Your task to perform on an android device: turn pop-ups on in chrome Image 0: 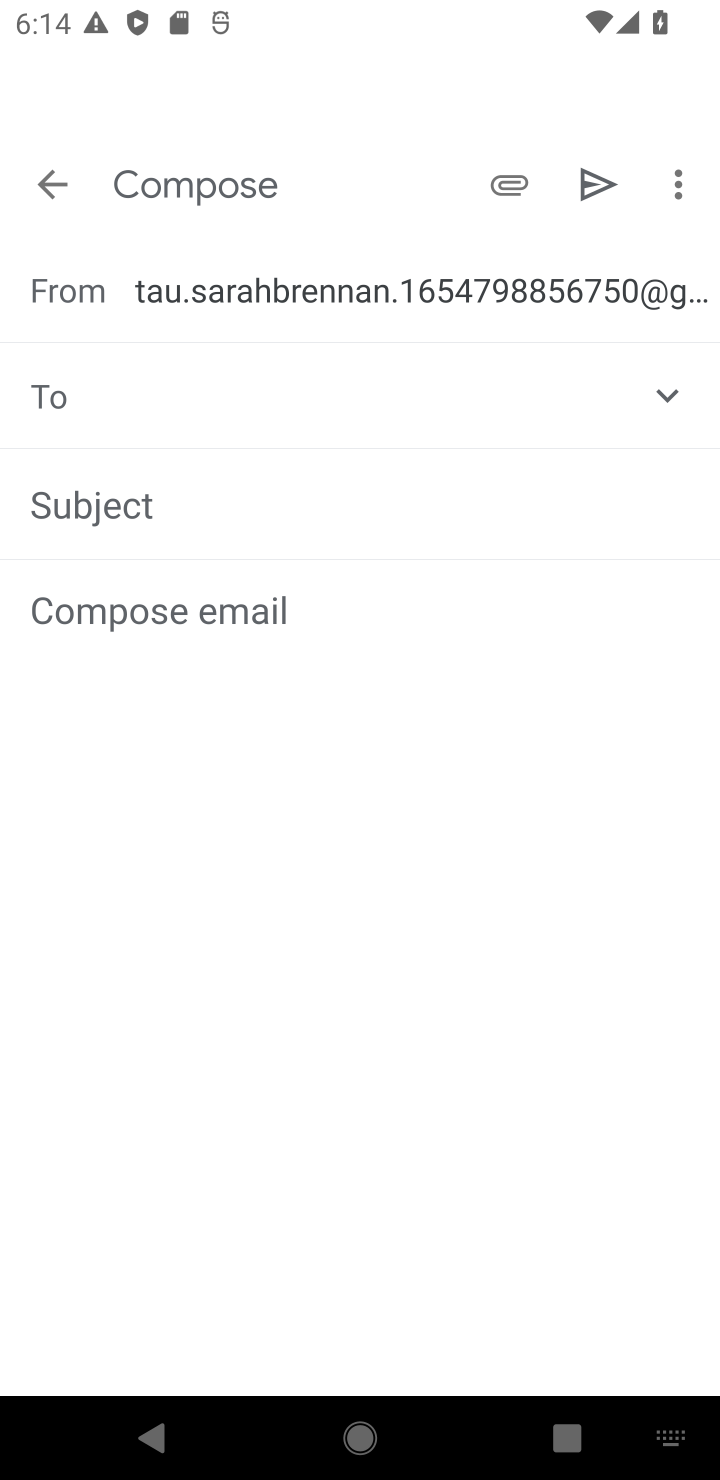
Step 0: press back button
Your task to perform on an android device: turn pop-ups on in chrome Image 1: 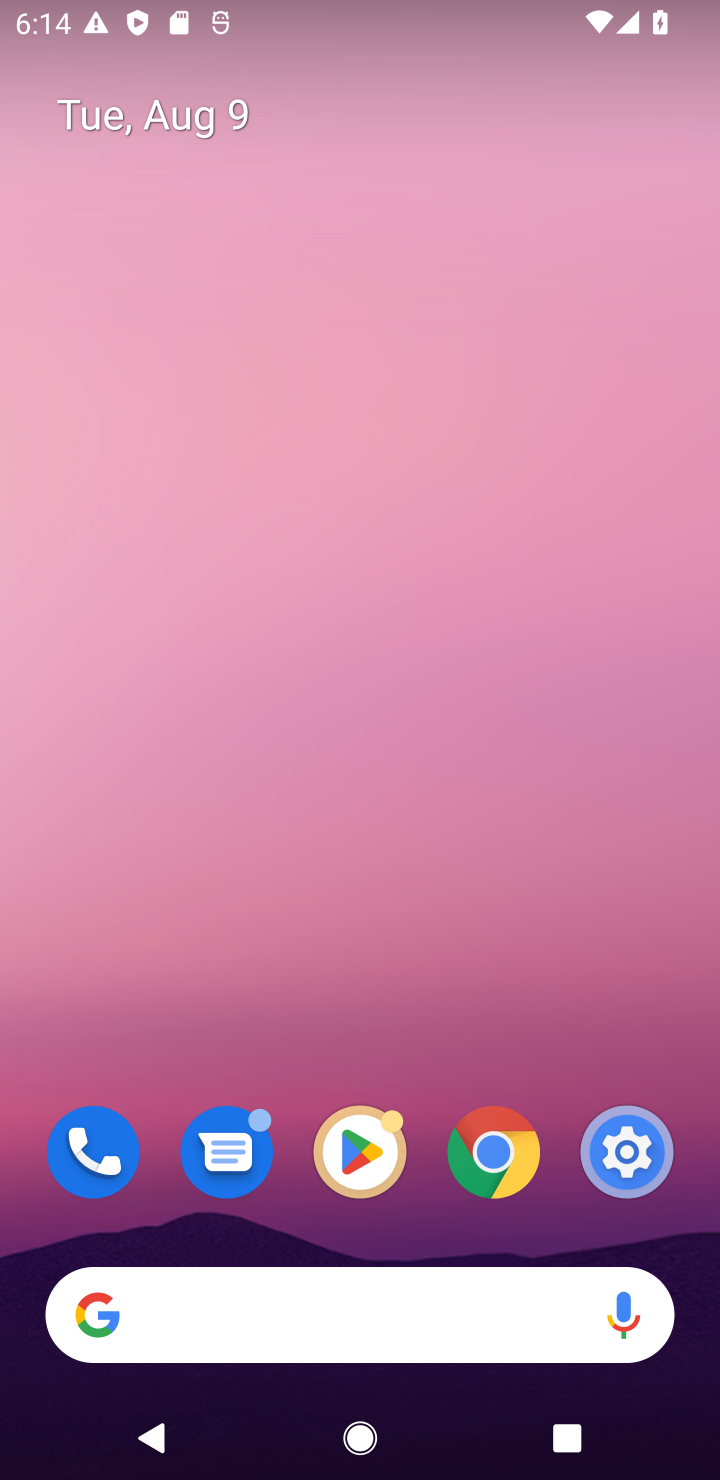
Step 1: click (485, 1138)
Your task to perform on an android device: turn pop-ups on in chrome Image 2: 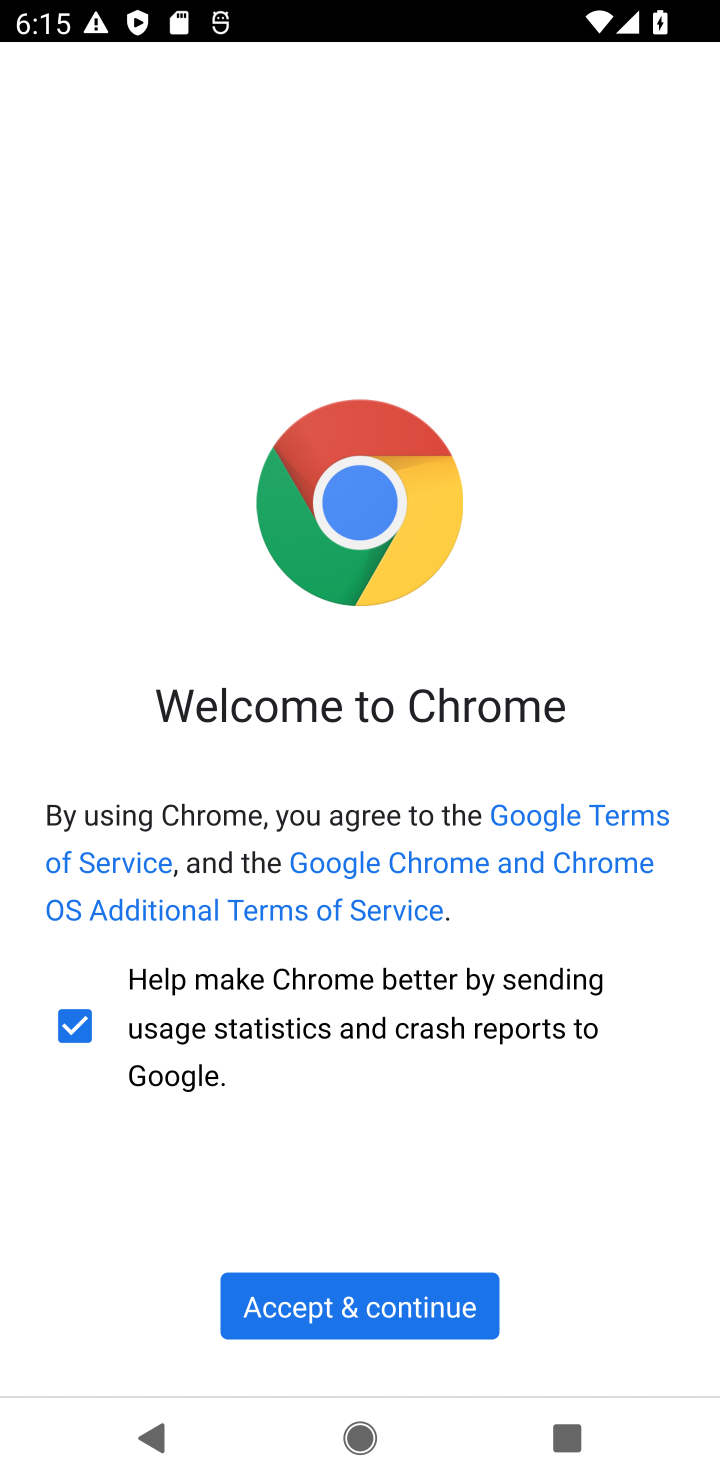
Step 2: click (305, 1284)
Your task to perform on an android device: turn pop-ups on in chrome Image 3: 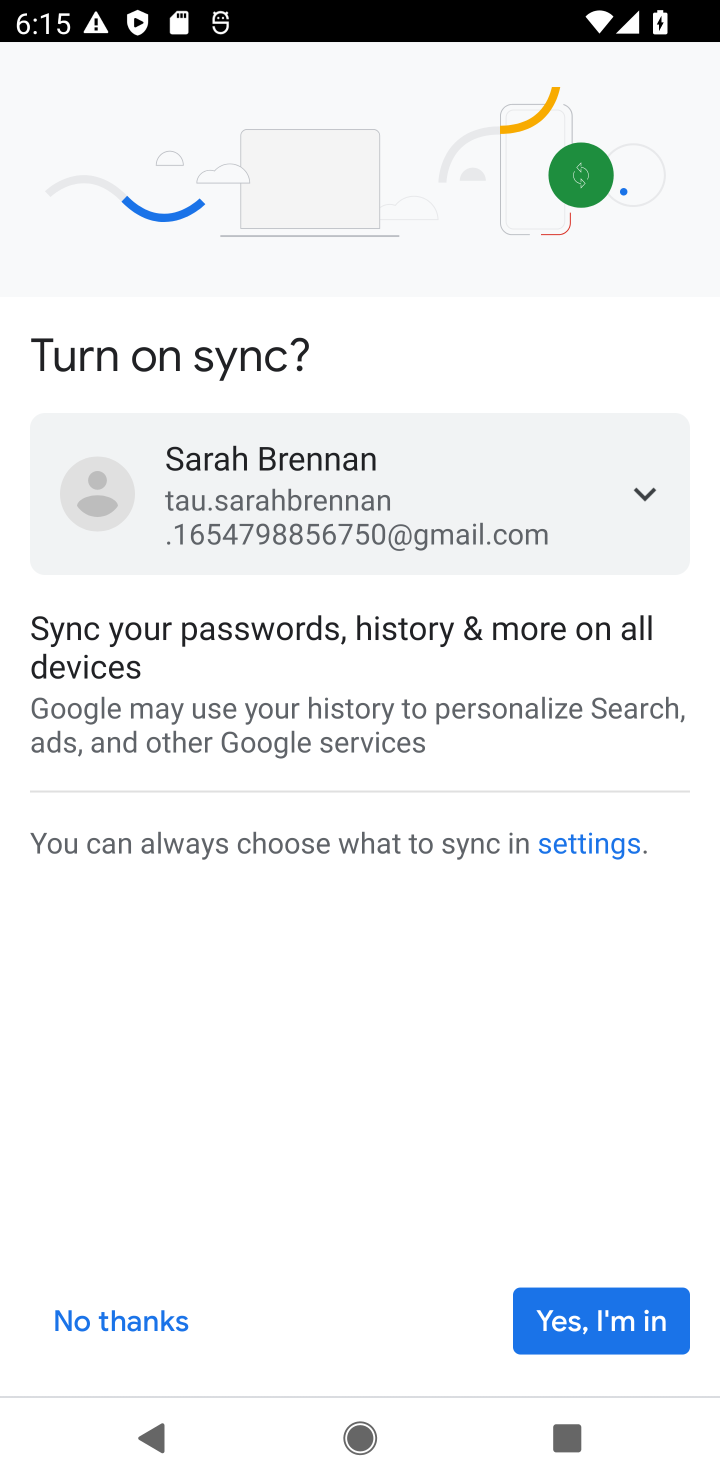
Step 3: click (568, 1313)
Your task to perform on an android device: turn pop-ups on in chrome Image 4: 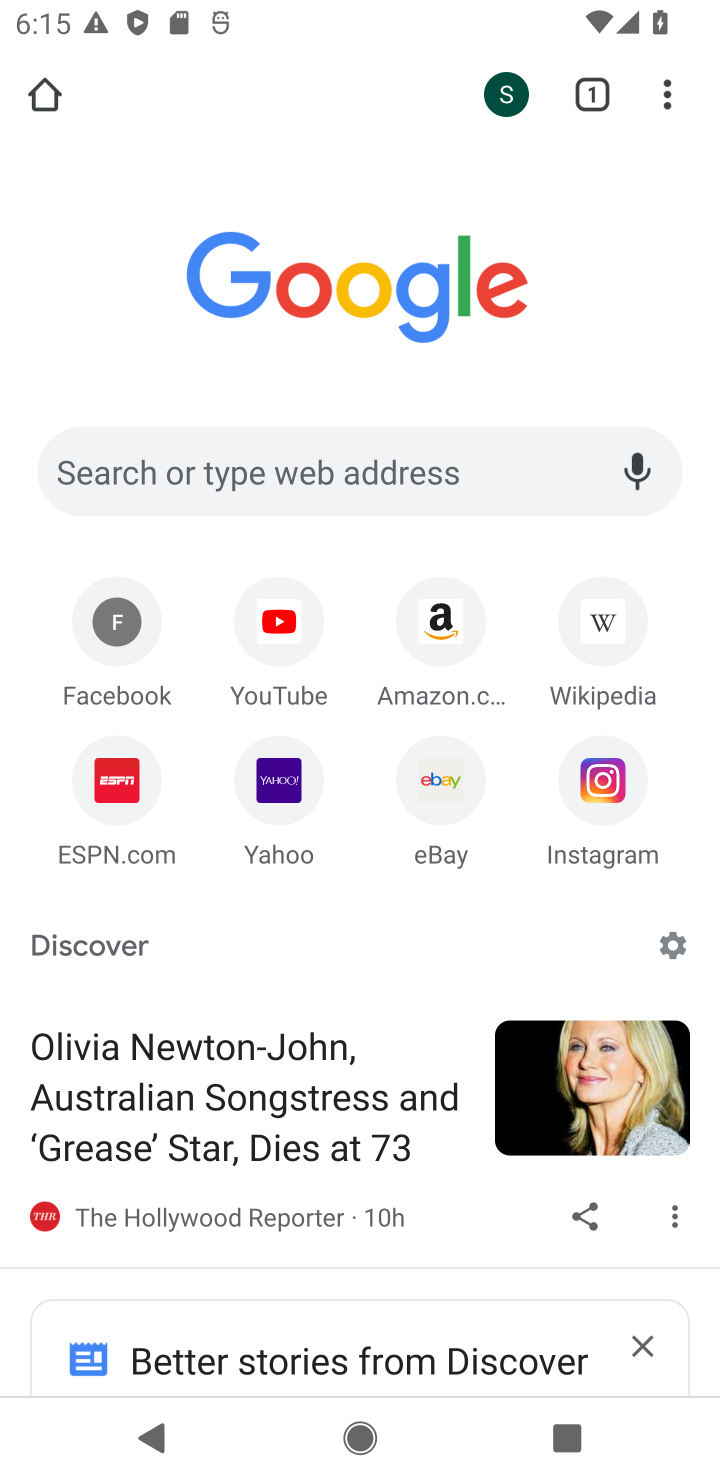
Step 4: drag from (671, 108) to (360, 891)
Your task to perform on an android device: turn pop-ups on in chrome Image 5: 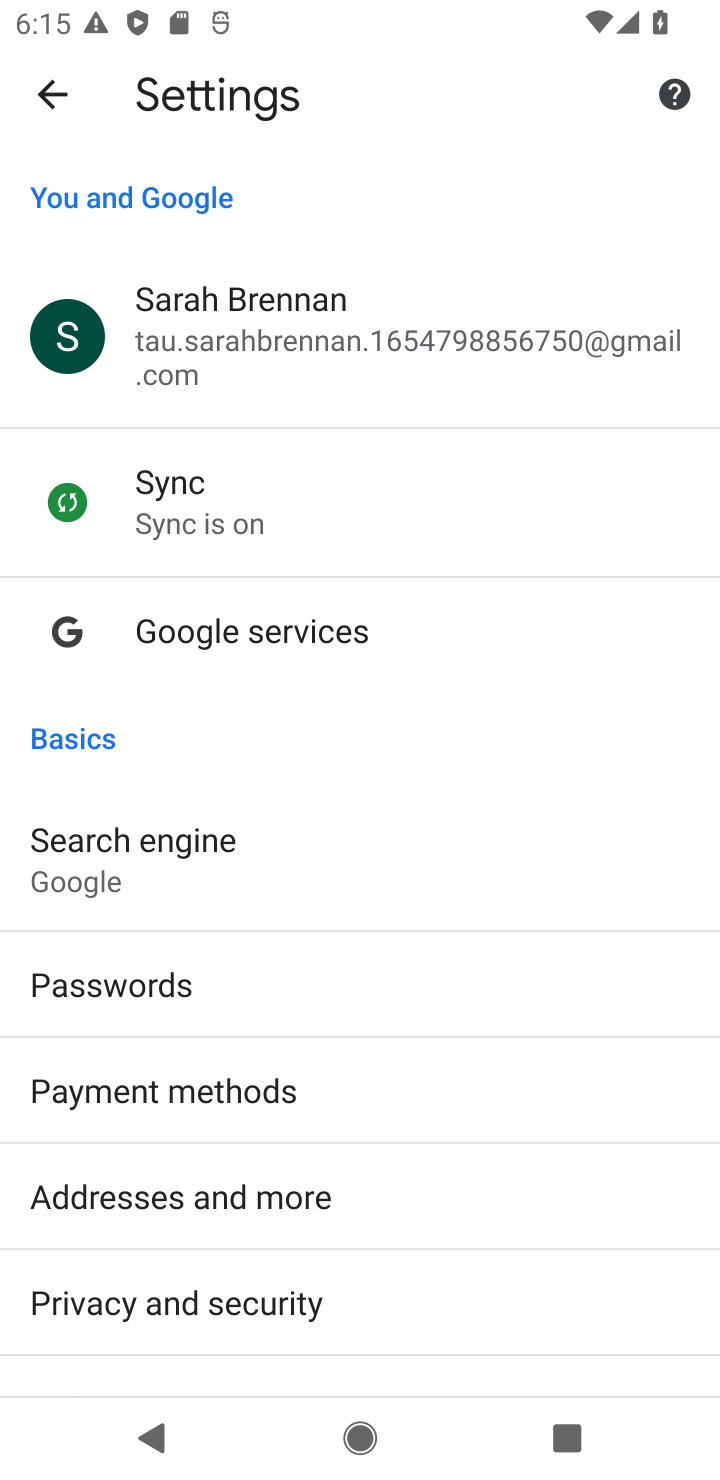
Step 5: drag from (605, 1103) to (700, 49)
Your task to perform on an android device: turn pop-ups on in chrome Image 6: 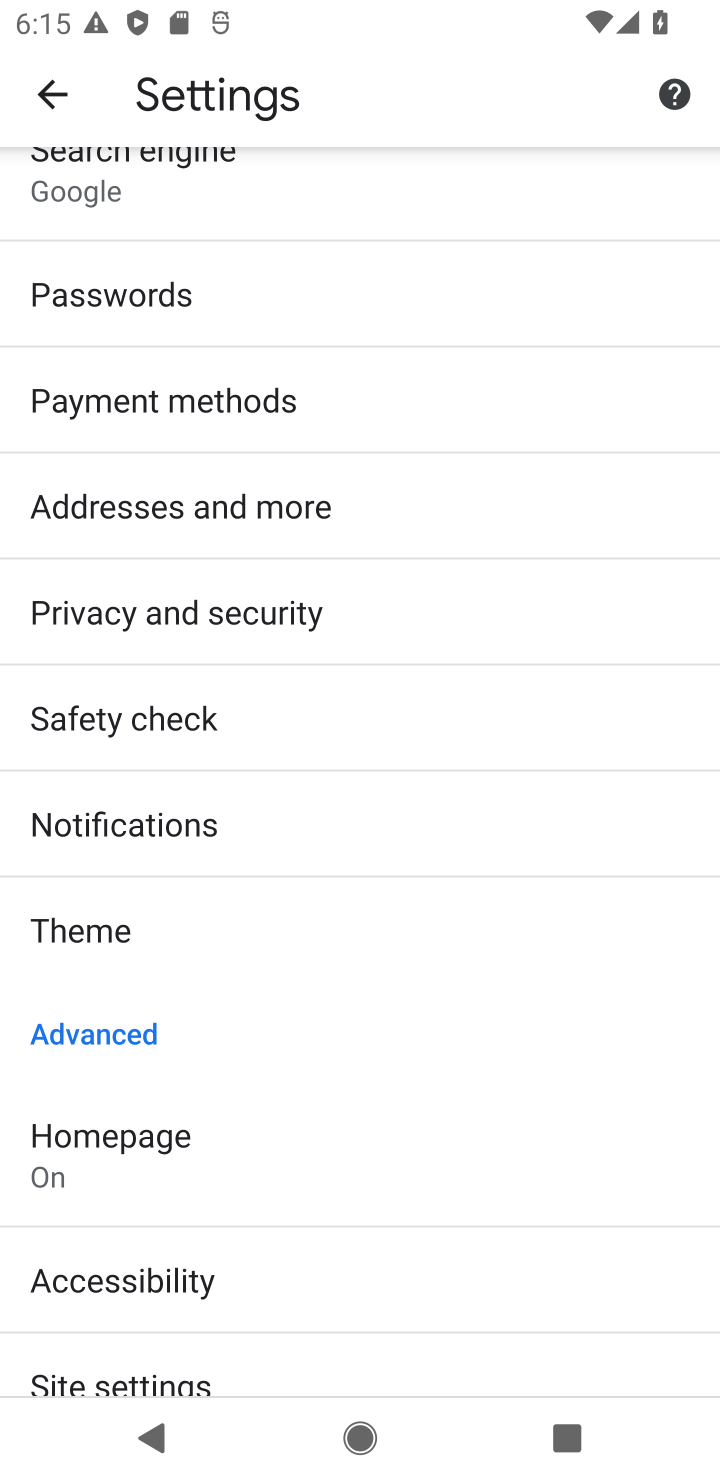
Step 6: drag from (252, 1155) to (431, 41)
Your task to perform on an android device: turn pop-ups on in chrome Image 7: 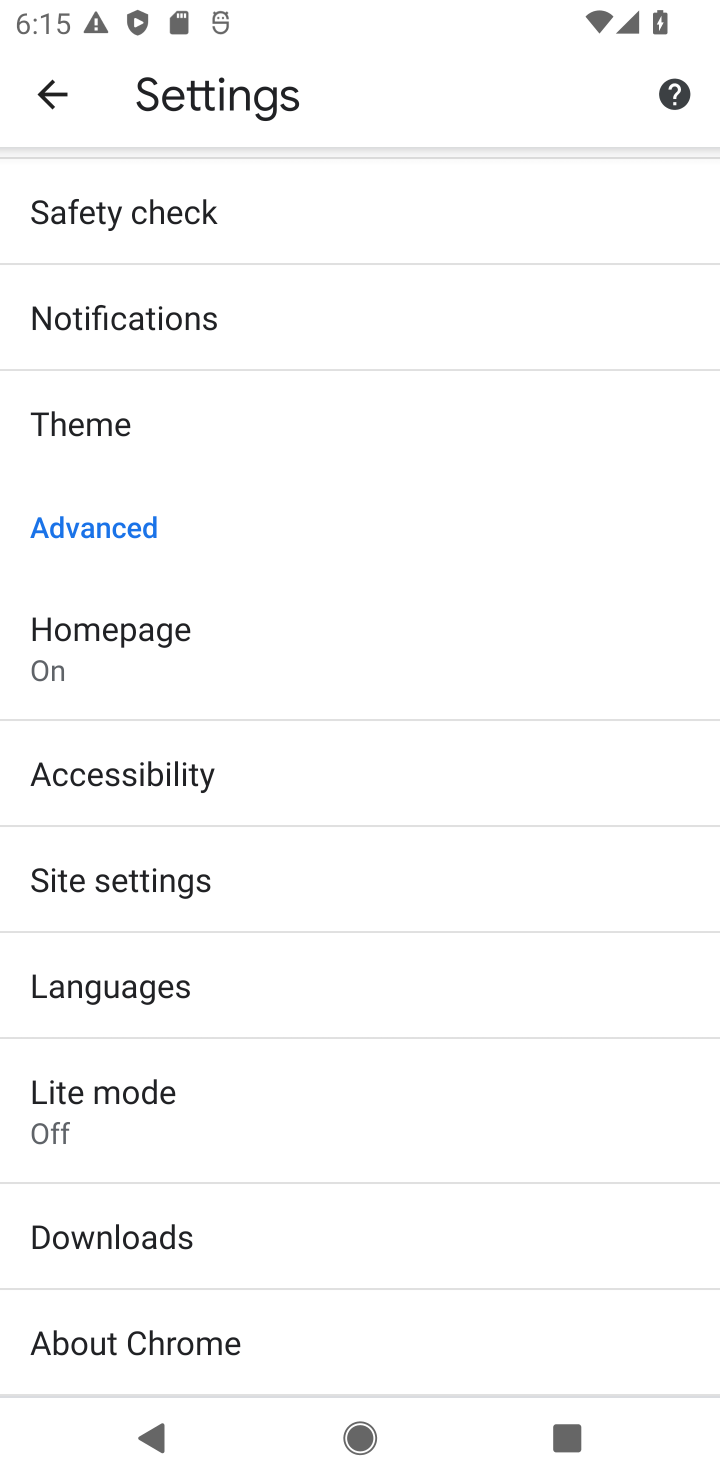
Step 7: click (157, 853)
Your task to perform on an android device: turn pop-ups on in chrome Image 8: 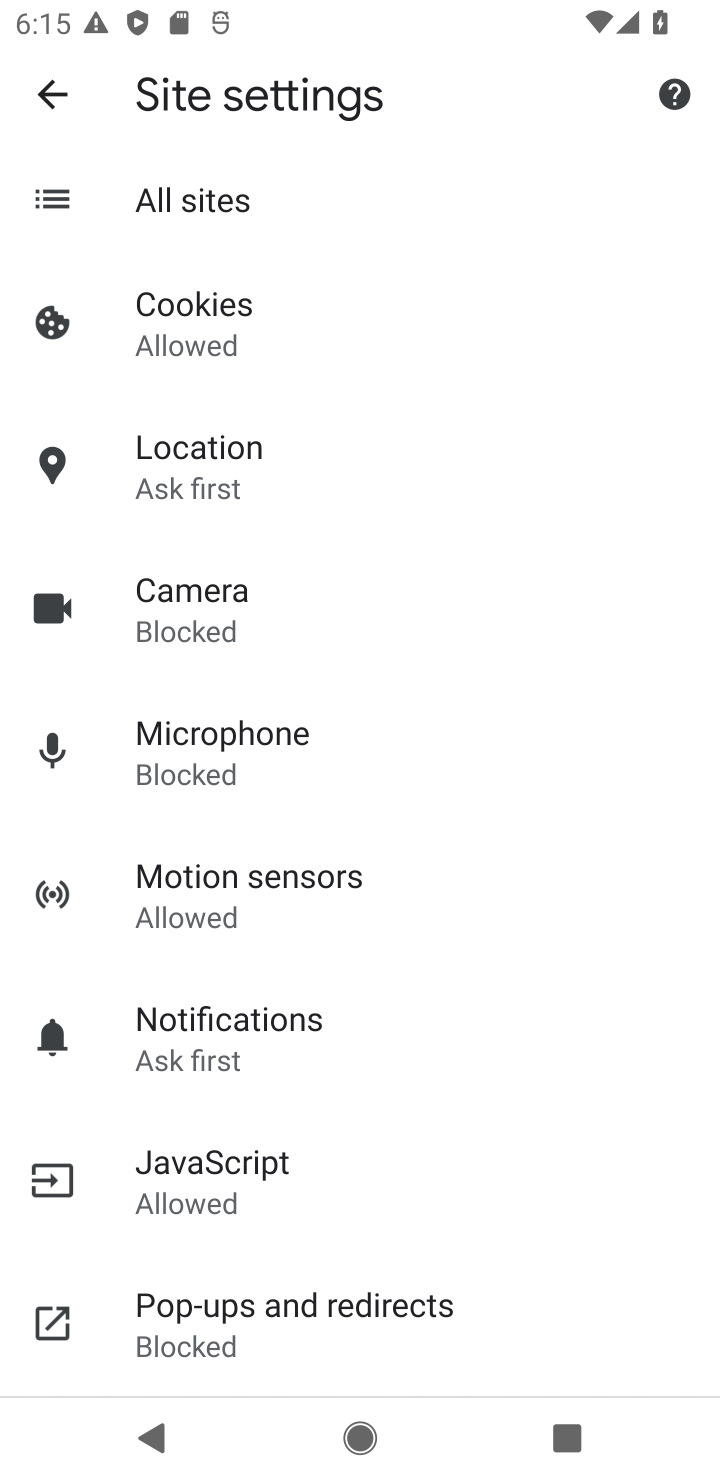
Step 8: click (294, 1301)
Your task to perform on an android device: turn pop-ups on in chrome Image 9: 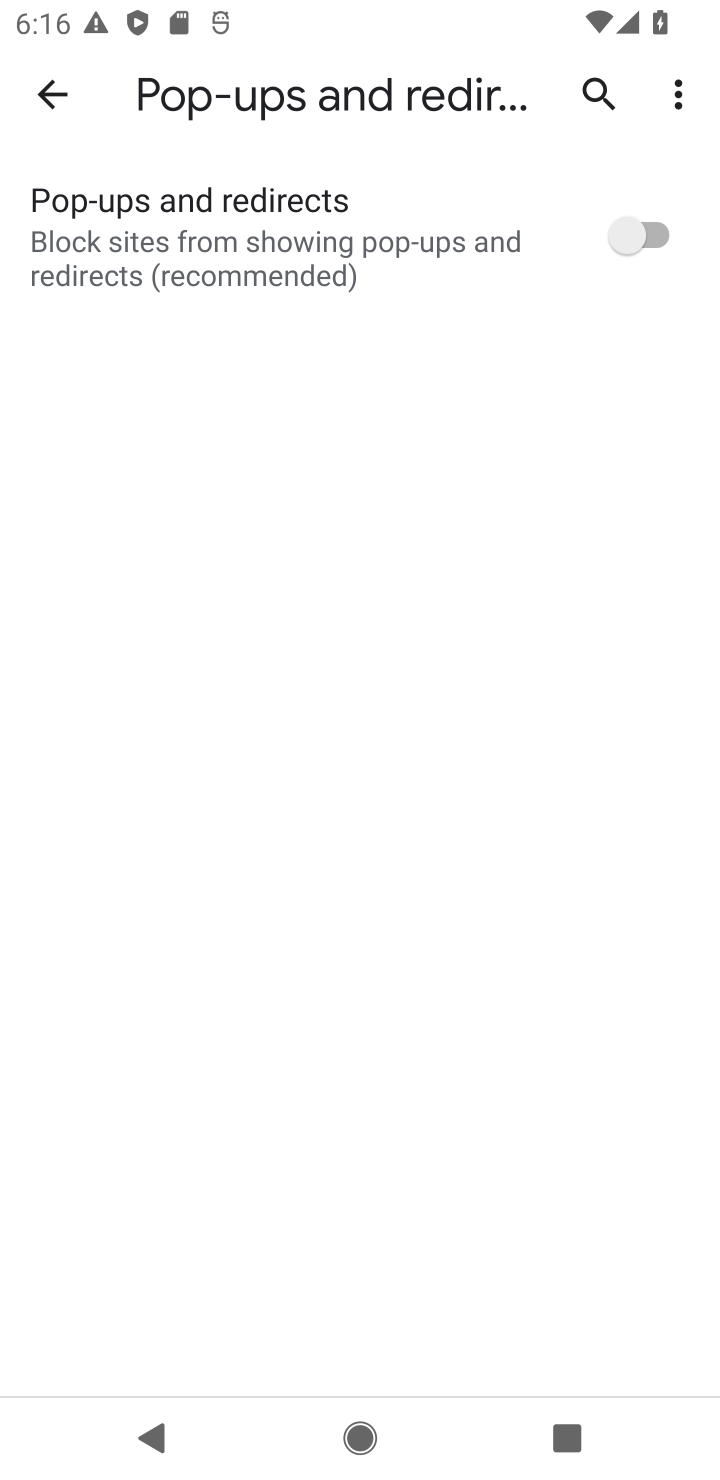
Step 9: click (620, 234)
Your task to perform on an android device: turn pop-ups on in chrome Image 10: 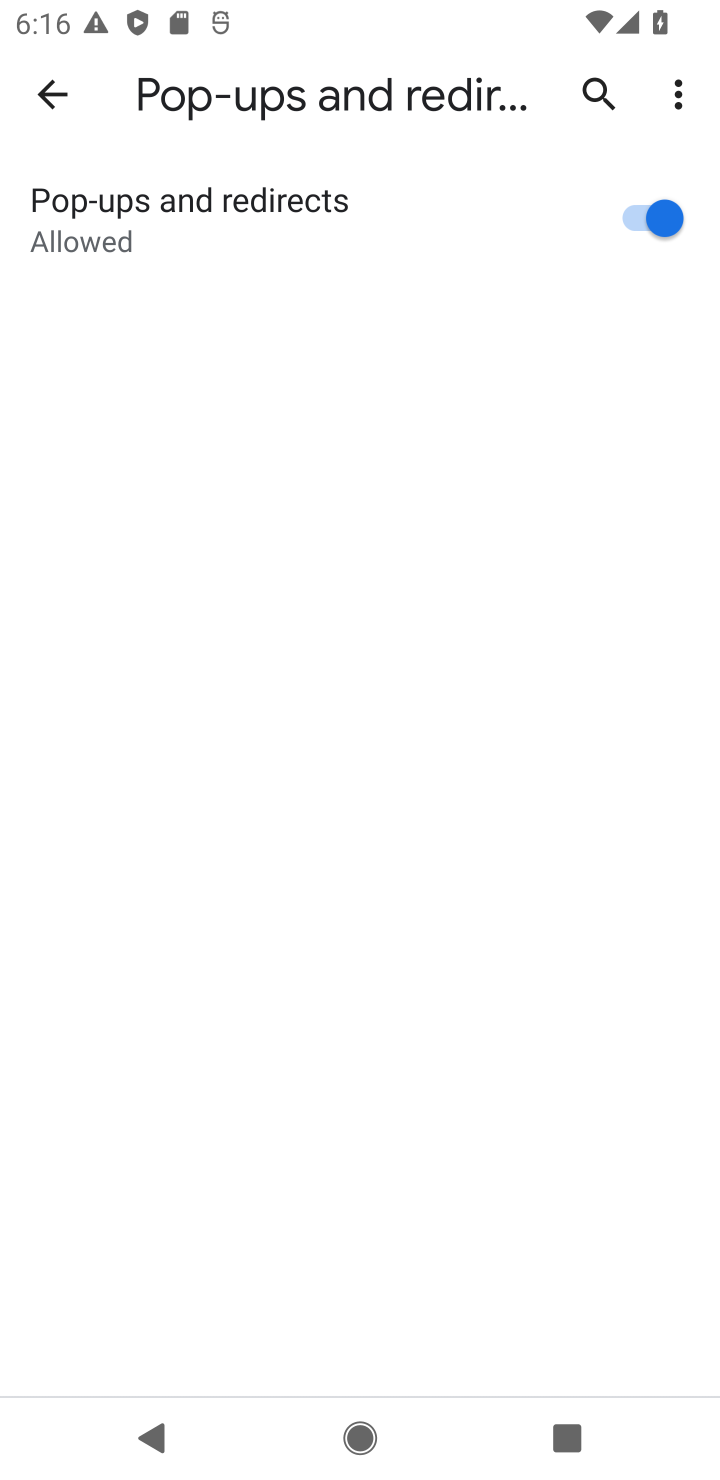
Step 10: task complete